Your task to perform on an android device: snooze an email in the gmail app Image 0: 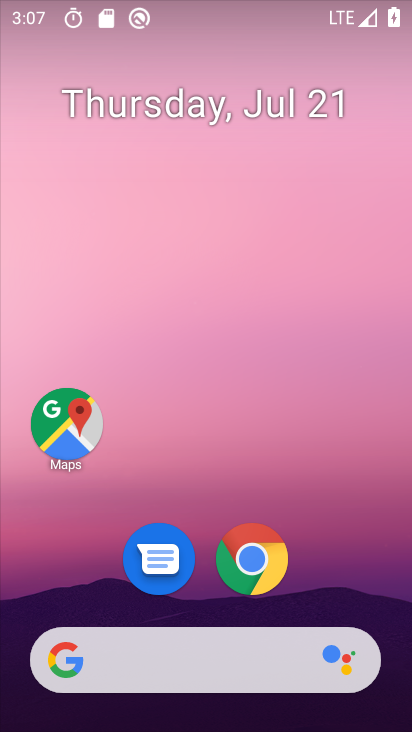
Step 0: press home button
Your task to perform on an android device: snooze an email in the gmail app Image 1: 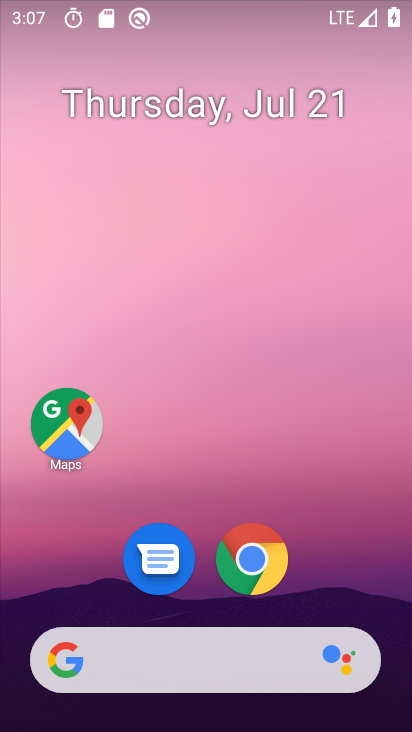
Step 1: drag from (364, 562) to (363, 167)
Your task to perform on an android device: snooze an email in the gmail app Image 2: 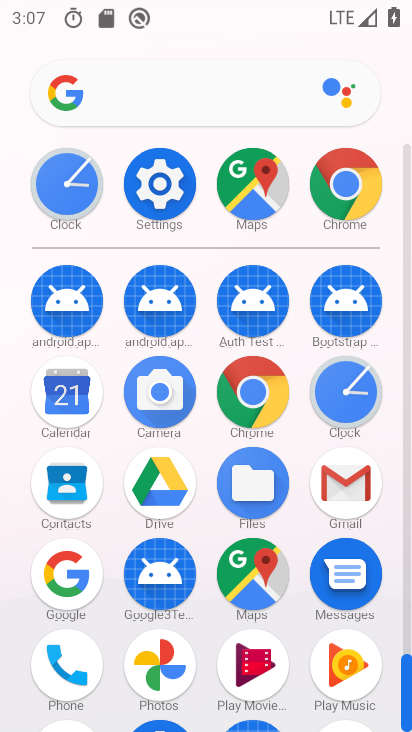
Step 2: click (361, 468)
Your task to perform on an android device: snooze an email in the gmail app Image 3: 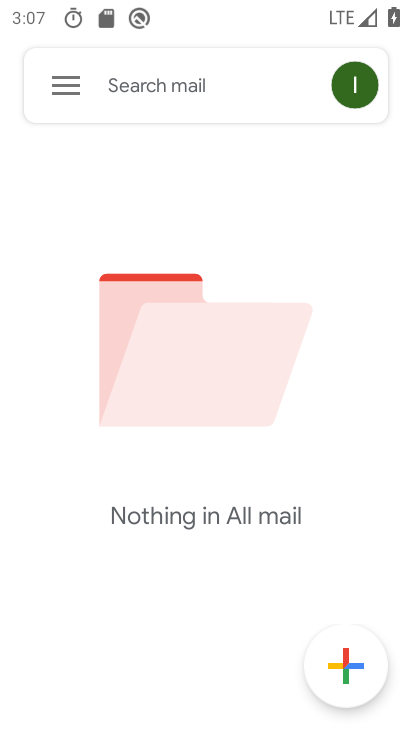
Step 3: click (66, 89)
Your task to perform on an android device: snooze an email in the gmail app Image 4: 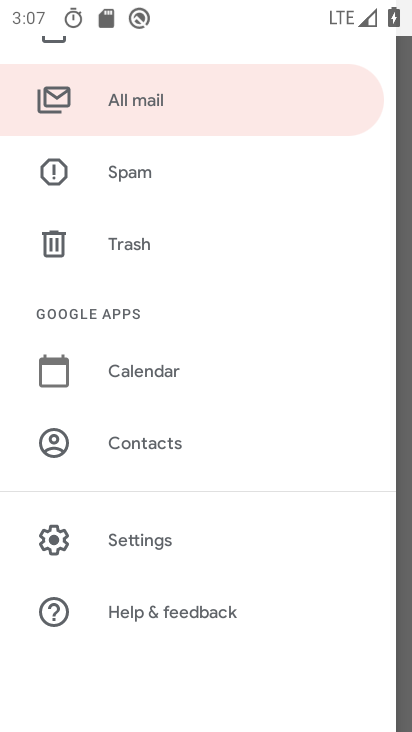
Step 4: drag from (312, 251) to (318, 352)
Your task to perform on an android device: snooze an email in the gmail app Image 5: 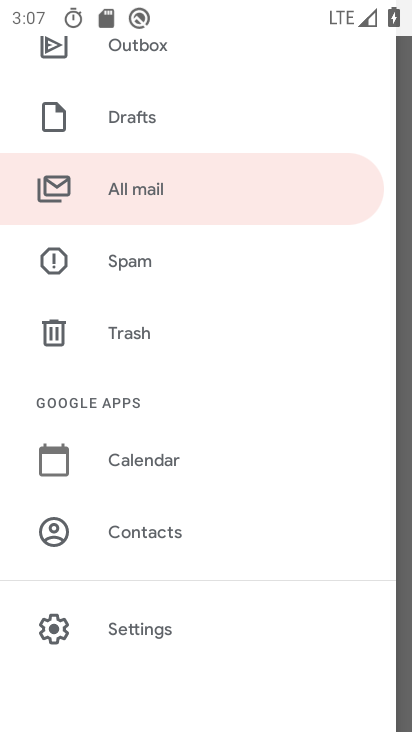
Step 5: drag from (315, 294) to (319, 407)
Your task to perform on an android device: snooze an email in the gmail app Image 6: 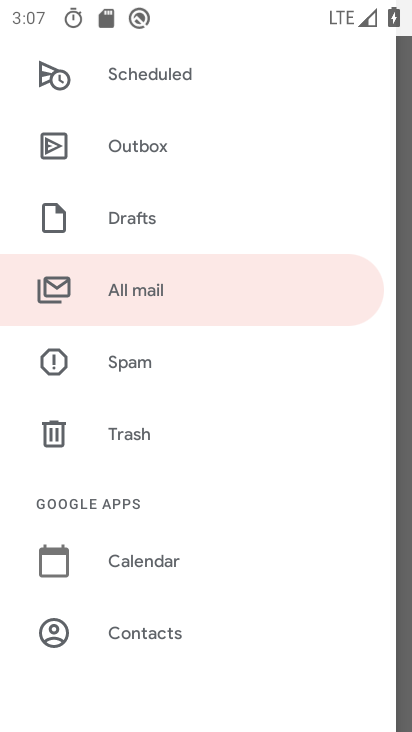
Step 6: drag from (318, 263) to (318, 384)
Your task to perform on an android device: snooze an email in the gmail app Image 7: 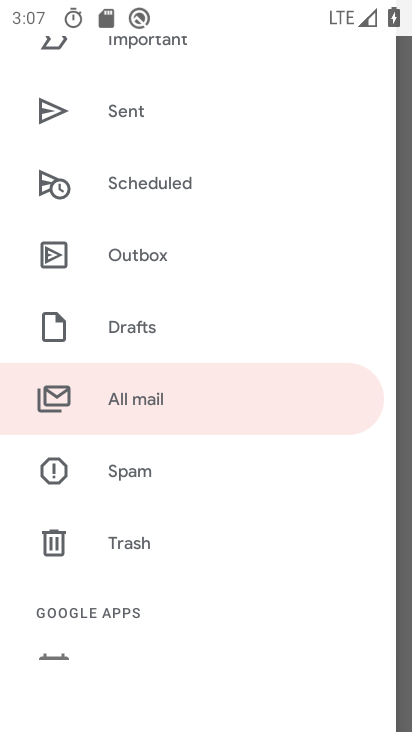
Step 7: drag from (318, 205) to (322, 336)
Your task to perform on an android device: snooze an email in the gmail app Image 8: 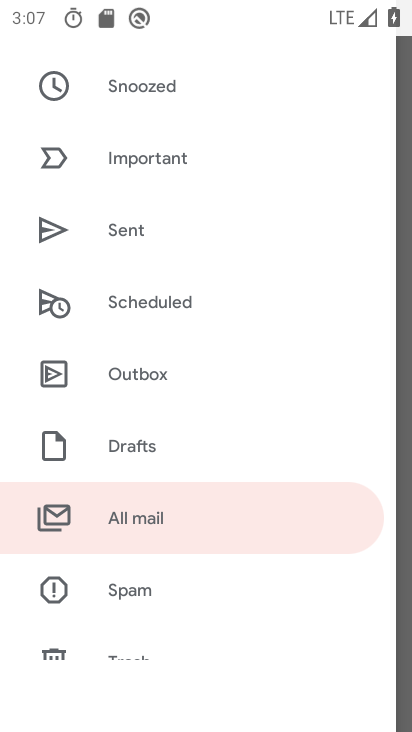
Step 8: drag from (317, 176) to (326, 322)
Your task to perform on an android device: snooze an email in the gmail app Image 9: 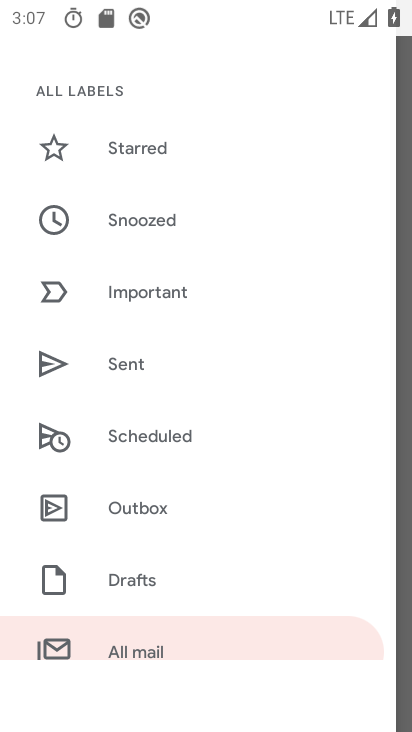
Step 9: drag from (310, 131) to (317, 359)
Your task to perform on an android device: snooze an email in the gmail app Image 10: 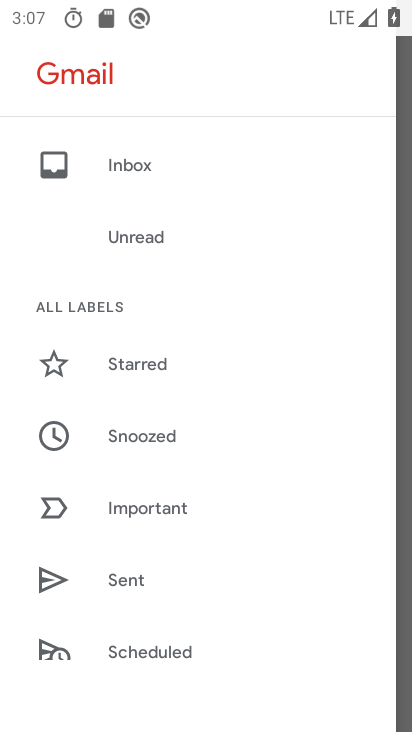
Step 10: click (210, 435)
Your task to perform on an android device: snooze an email in the gmail app Image 11: 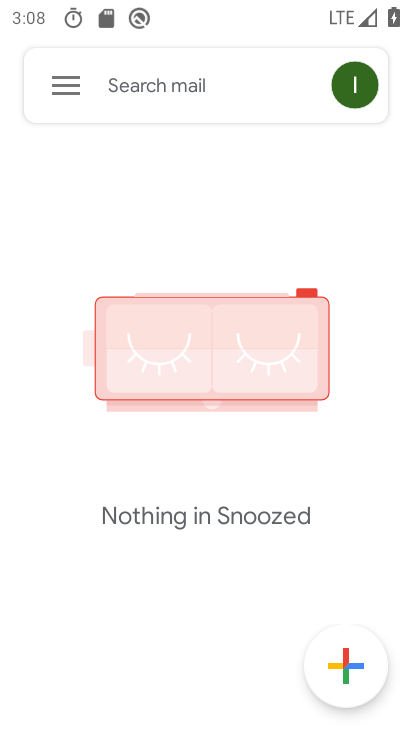
Step 11: task complete